Your task to perform on an android device: turn on priority inbox in the gmail app Image 0: 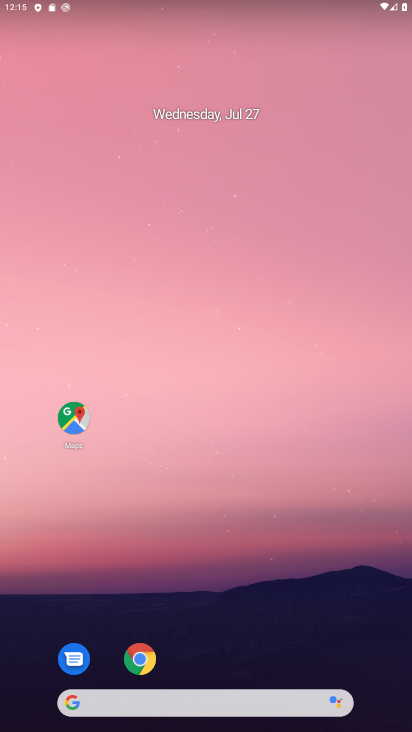
Step 0: drag from (288, 569) to (244, 160)
Your task to perform on an android device: turn on priority inbox in the gmail app Image 1: 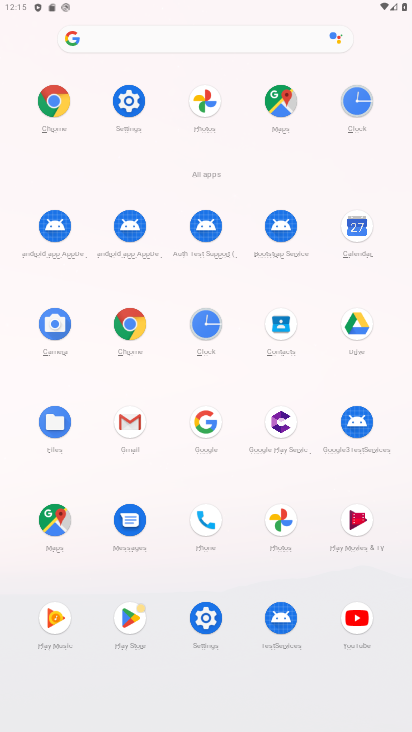
Step 1: click (129, 428)
Your task to perform on an android device: turn on priority inbox in the gmail app Image 2: 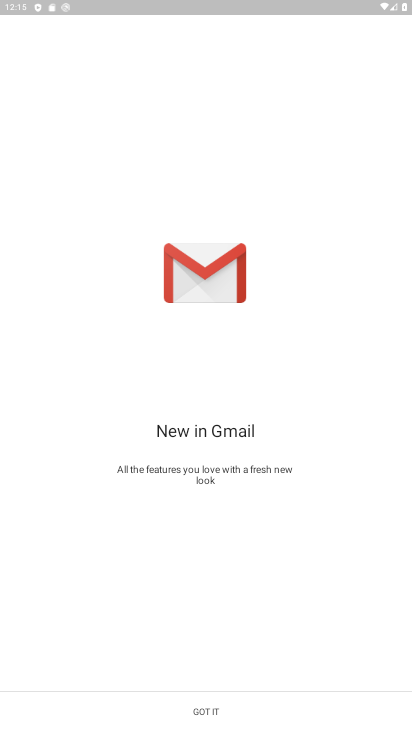
Step 2: click (196, 708)
Your task to perform on an android device: turn on priority inbox in the gmail app Image 3: 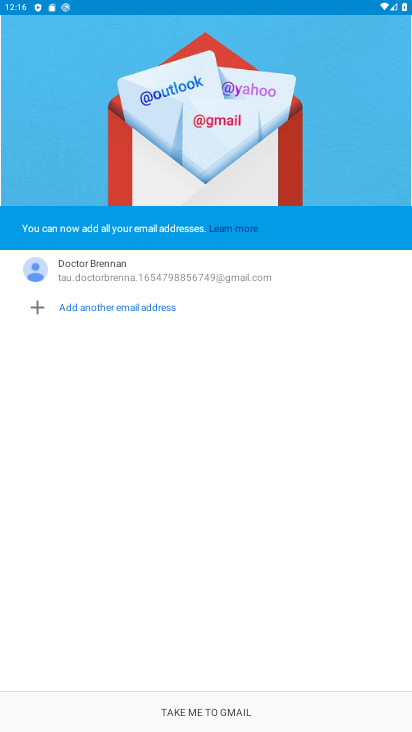
Step 3: click (152, 713)
Your task to perform on an android device: turn on priority inbox in the gmail app Image 4: 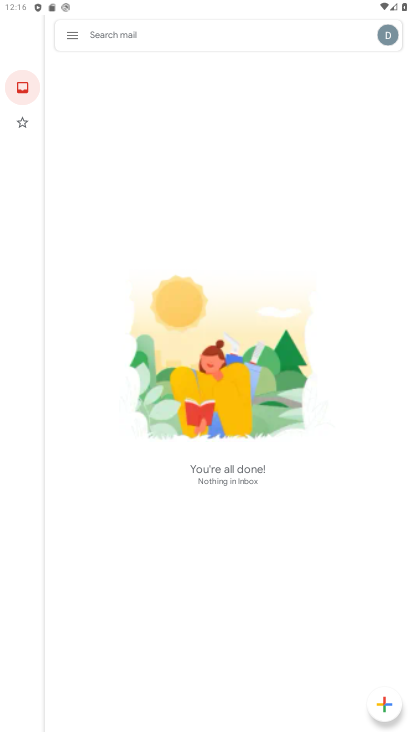
Step 4: click (72, 36)
Your task to perform on an android device: turn on priority inbox in the gmail app Image 5: 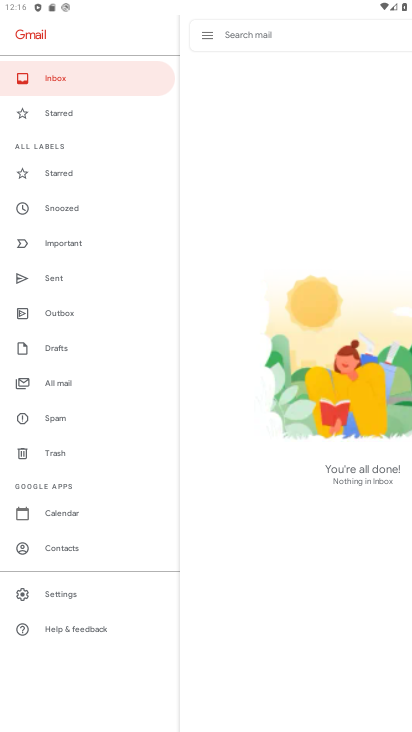
Step 5: click (84, 593)
Your task to perform on an android device: turn on priority inbox in the gmail app Image 6: 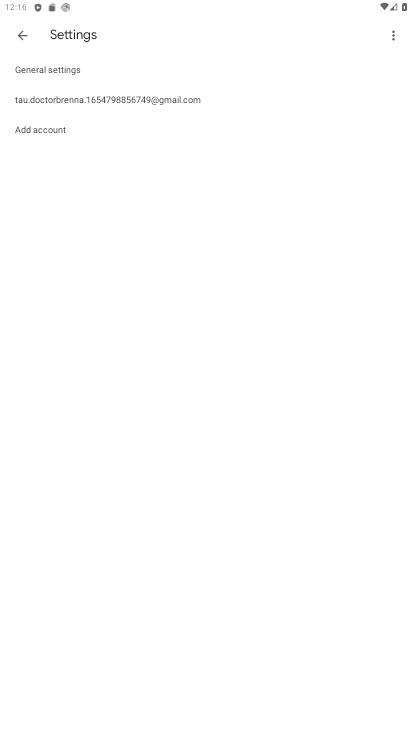
Step 6: click (49, 95)
Your task to perform on an android device: turn on priority inbox in the gmail app Image 7: 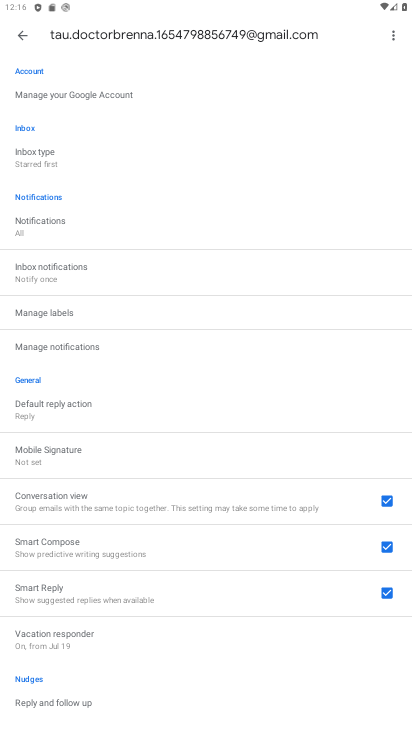
Step 7: drag from (109, 158) to (356, 514)
Your task to perform on an android device: turn on priority inbox in the gmail app Image 8: 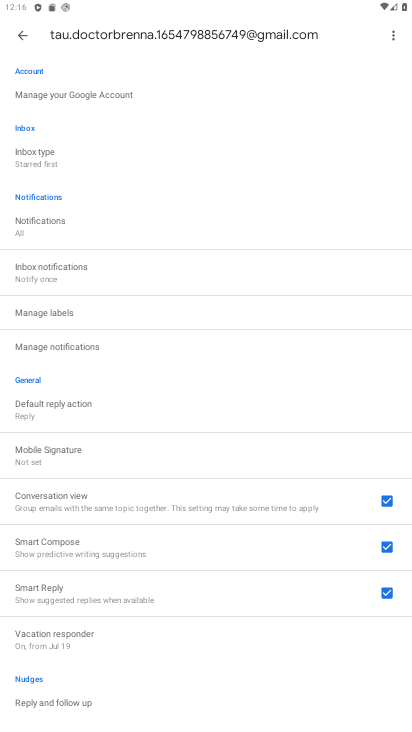
Step 8: click (62, 150)
Your task to perform on an android device: turn on priority inbox in the gmail app Image 9: 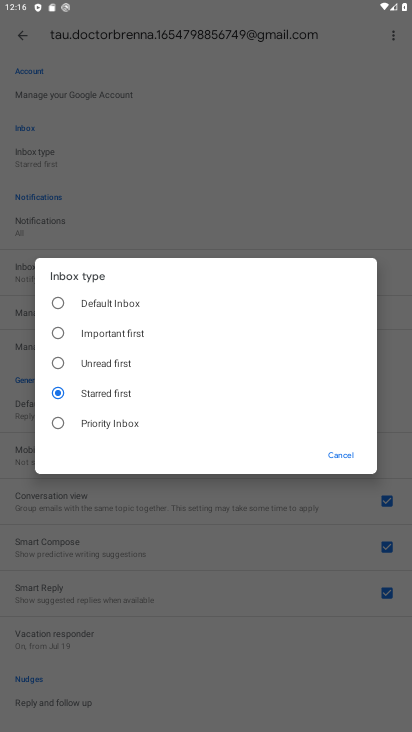
Step 9: click (113, 420)
Your task to perform on an android device: turn on priority inbox in the gmail app Image 10: 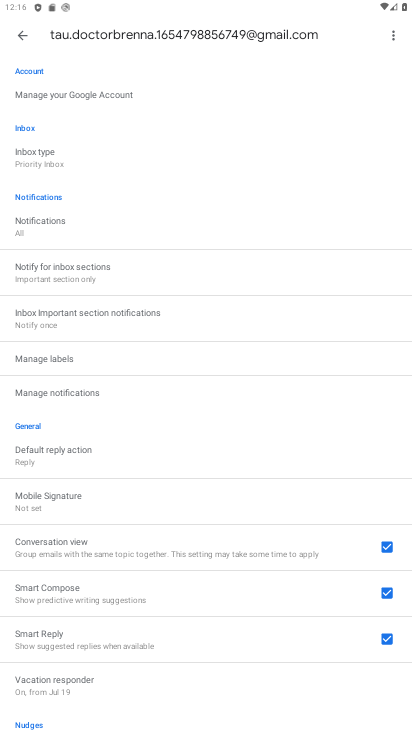
Step 10: task complete